Your task to perform on an android device: Is it going to rain today? Image 0: 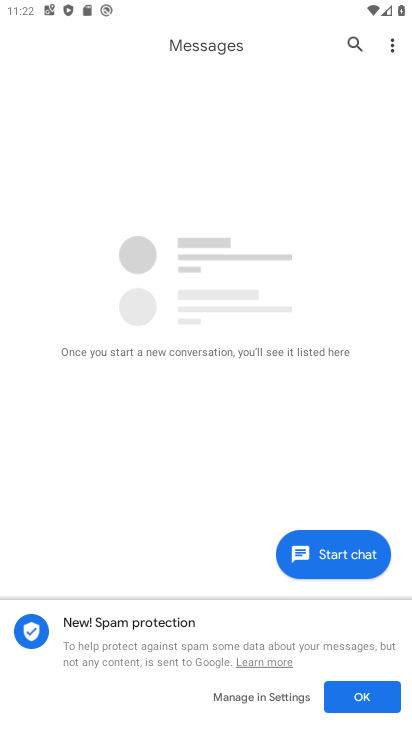
Step 0: press home button
Your task to perform on an android device: Is it going to rain today? Image 1: 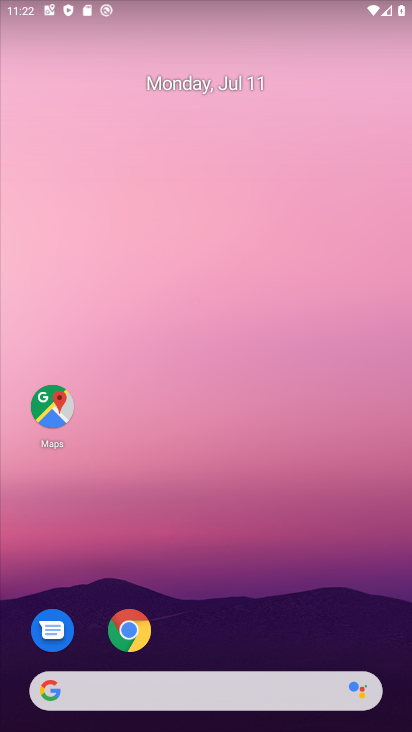
Step 1: drag from (243, 630) to (297, 75)
Your task to perform on an android device: Is it going to rain today? Image 2: 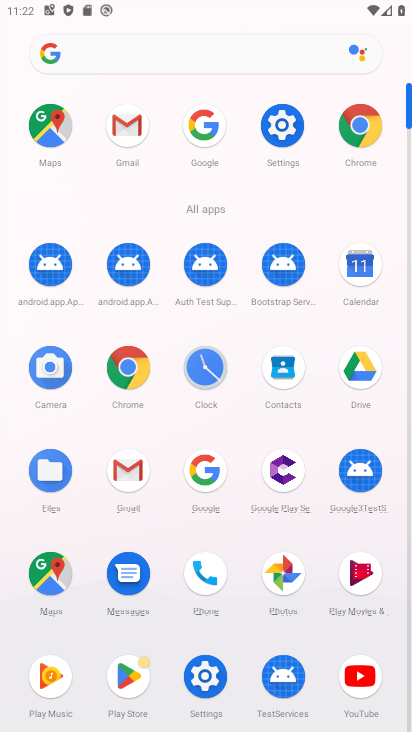
Step 2: click (203, 122)
Your task to perform on an android device: Is it going to rain today? Image 3: 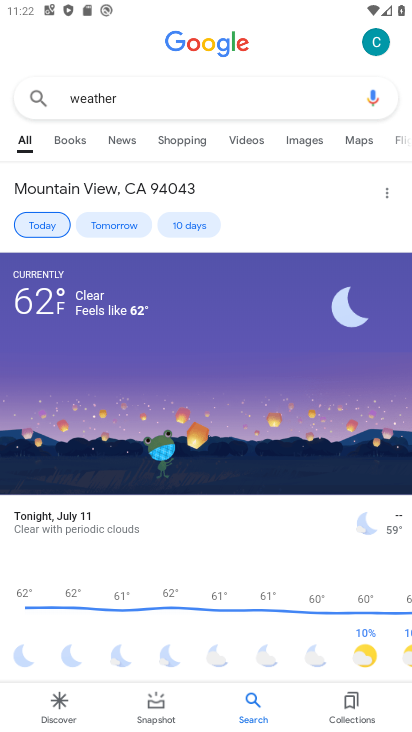
Step 3: click (216, 85)
Your task to perform on an android device: Is it going to rain today? Image 4: 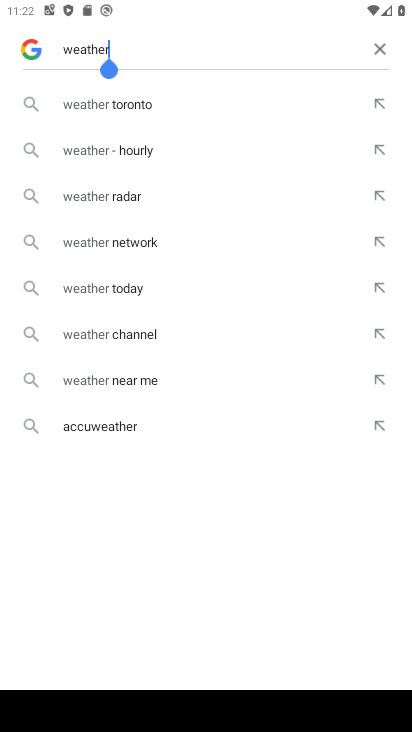
Step 4: click (376, 49)
Your task to perform on an android device: Is it going to rain today? Image 5: 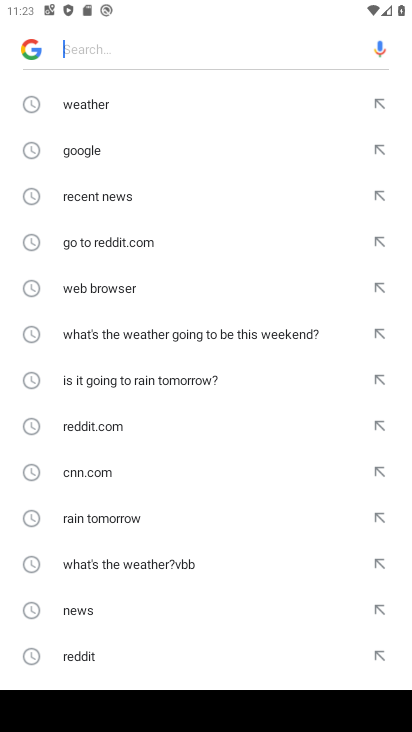
Step 5: type "is it going to rain today?"
Your task to perform on an android device: Is it going to rain today? Image 6: 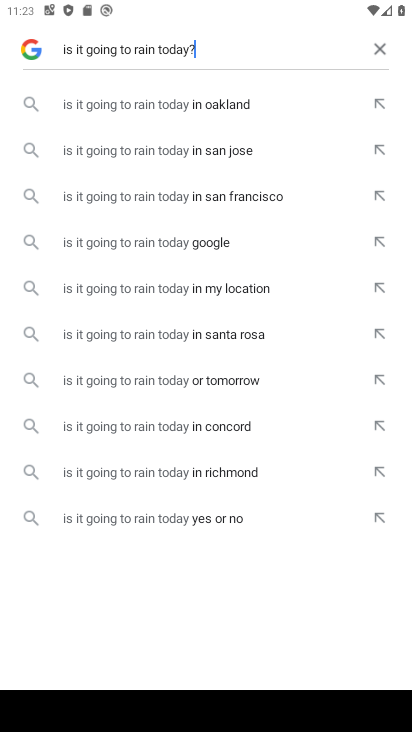
Step 6: task complete